Your task to perform on an android device: Open display settings Image 0: 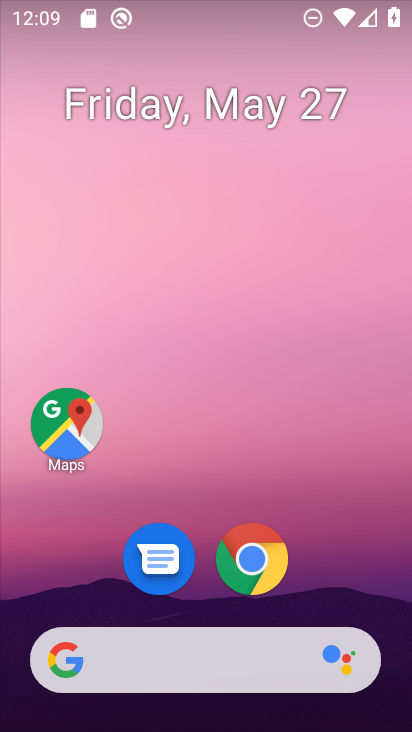
Step 0: drag from (344, 503) to (333, 88)
Your task to perform on an android device: Open display settings Image 1: 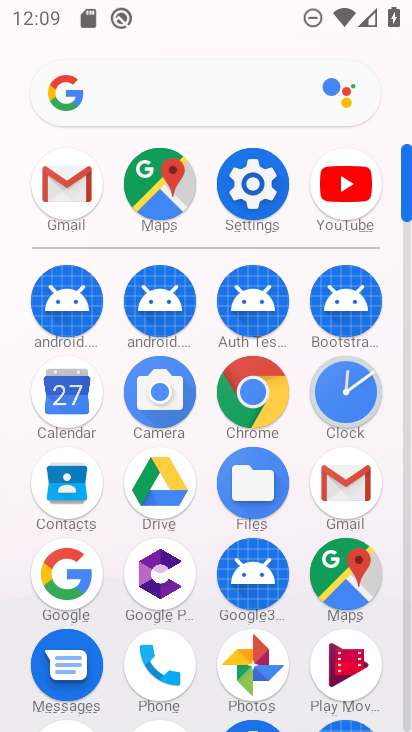
Step 1: click (252, 182)
Your task to perform on an android device: Open display settings Image 2: 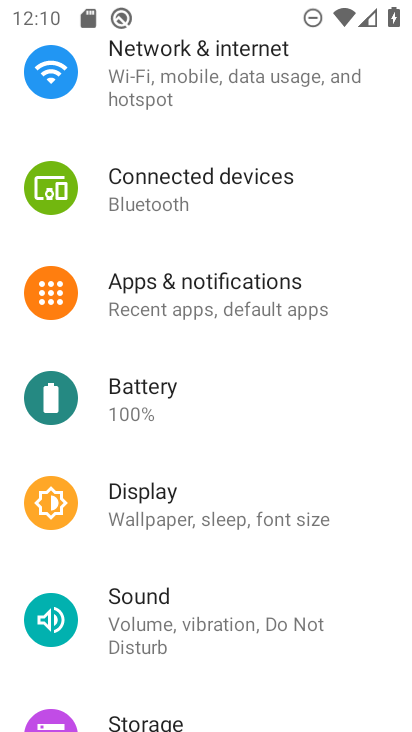
Step 2: click (228, 492)
Your task to perform on an android device: Open display settings Image 3: 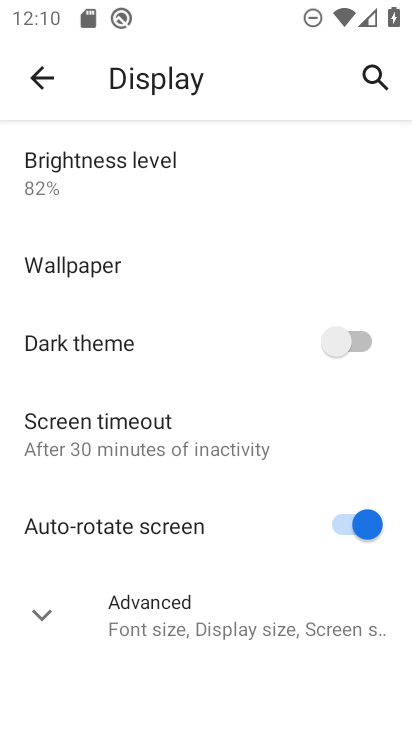
Step 3: task complete